Your task to perform on an android device: Go to Reddit.com Image 0: 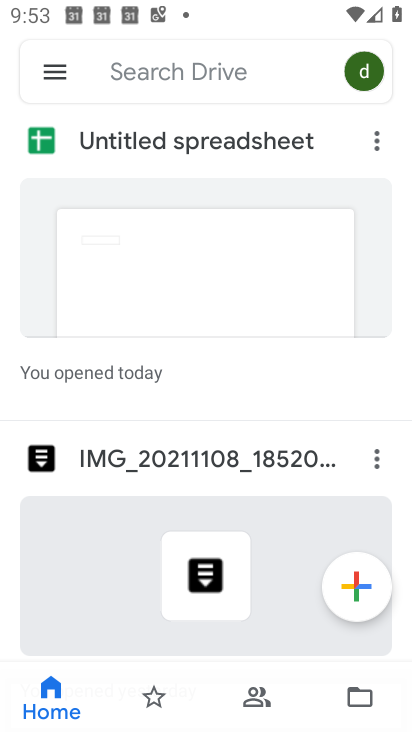
Step 0: press home button
Your task to perform on an android device: Go to Reddit.com Image 1: 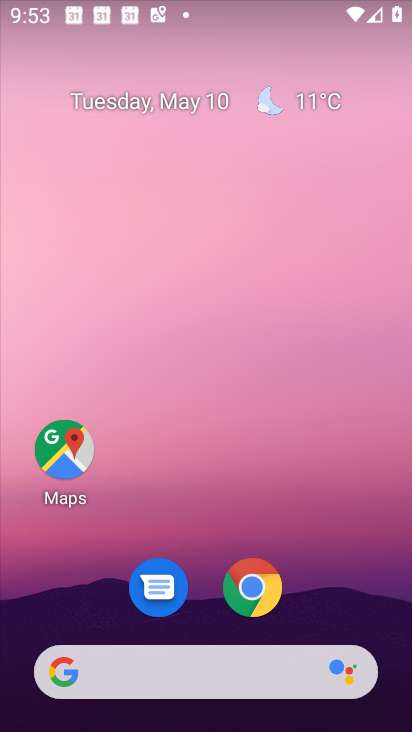
Step 1: drag from (352, 587) to (397, 197)
Your task to perform on an android device: Go to Reddit.com Image 2: 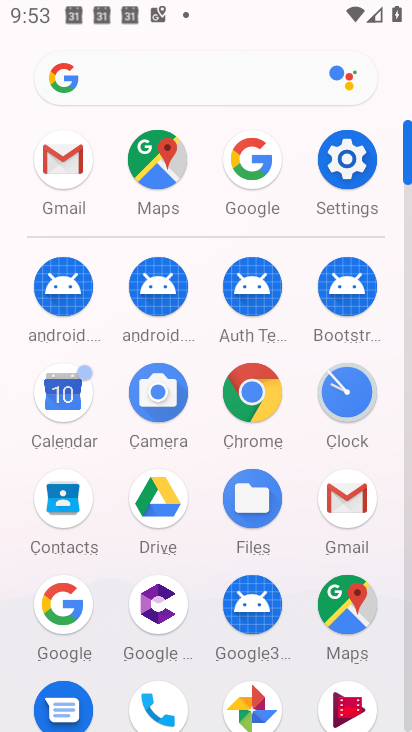
Step 2: click (253, 402)
Your task to perform on an android device: Go to Reddit.com Image 3: 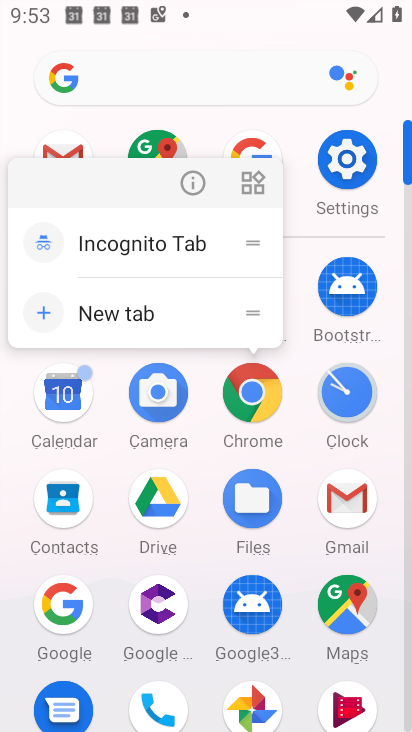
Step 3: click (257, 409)
Your task to perform on an android device: Go to Reddit.com Image 4: 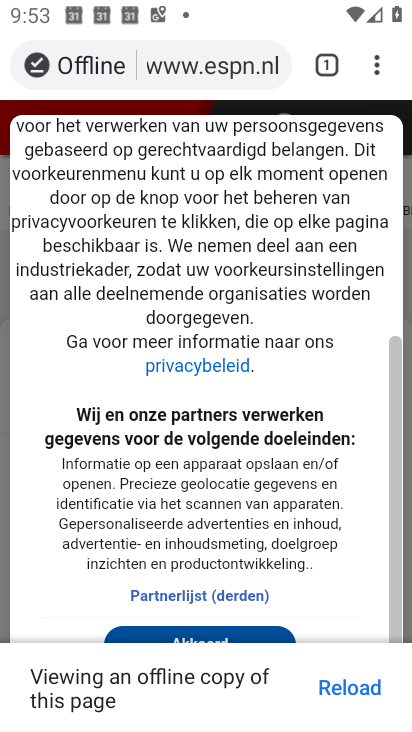
Step 4: click (215, 64)
Your task to perform on an android device: Go to Reddit.com Image 5: 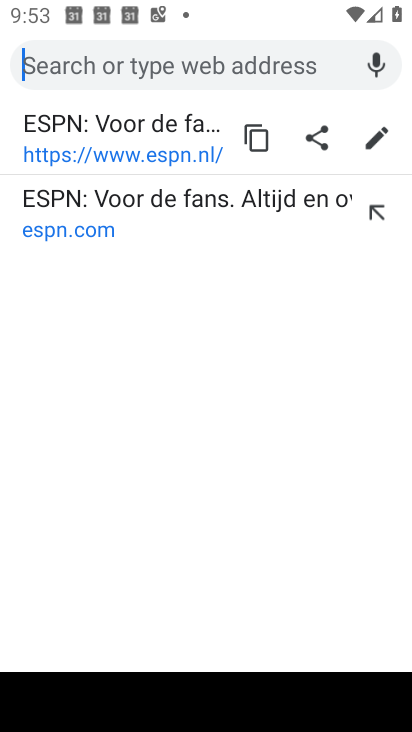
Step 5: type "reddit.com"
Your task to perform on an android device: Go to Reddit.com Image 6: 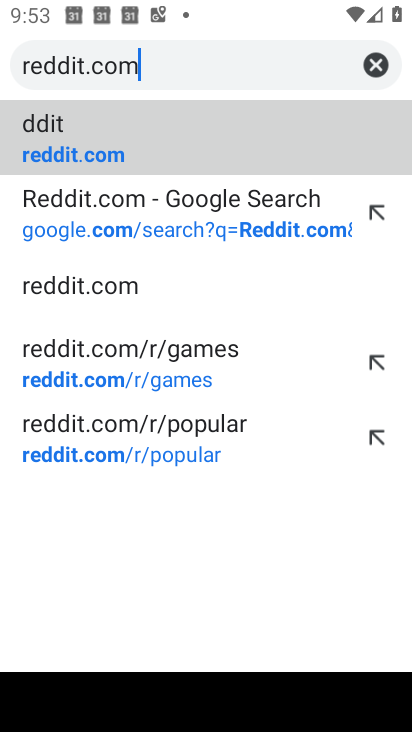
Step 6: click (105, 153)
Your task to perform on an android device: Go to Reddit.com Image 7: 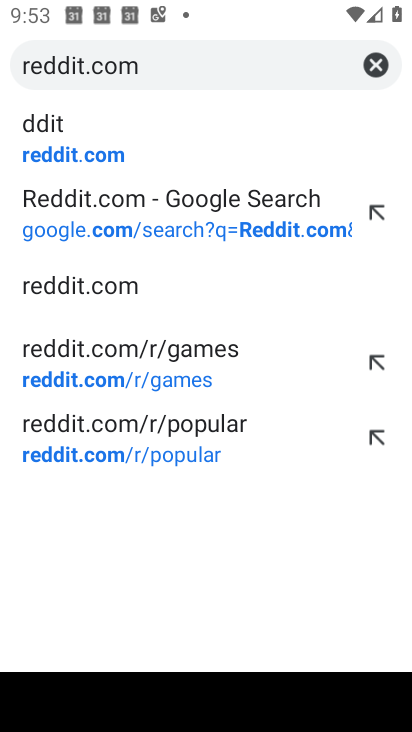
Step 7: click (87, 166)
Your task to perform on an android device: Go to Reddit.com Image 8: 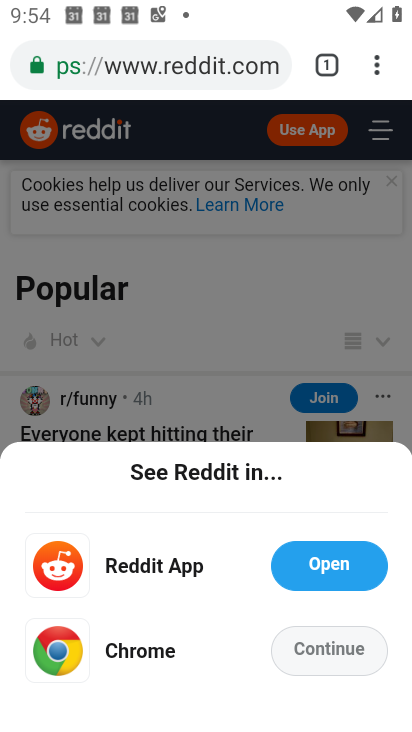
Step 8: task complete